Your task to perform on an android device: Go to display settings Image 0: 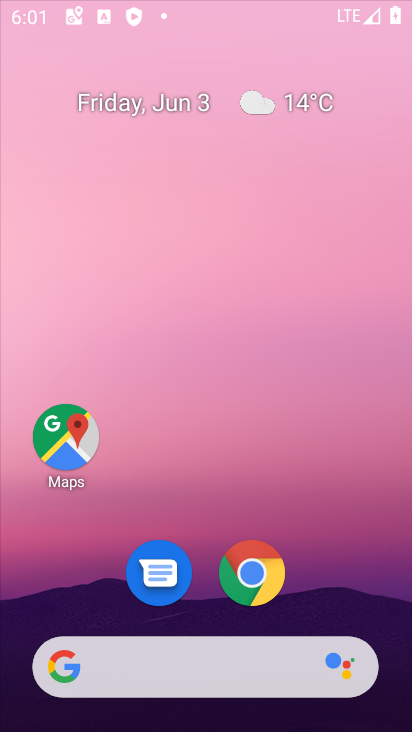
Step 0: drag from (302, 575) to (324, 100)
Your task to perform on an android device: Go to display settings Image 1: 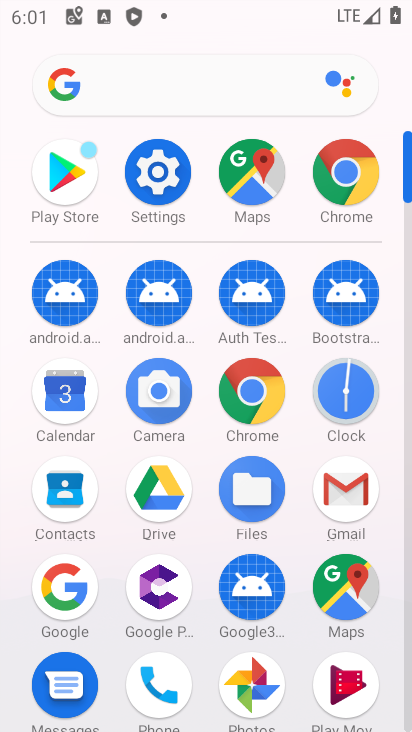
Step 1: click (153, 182)
Your task to perform on an android device: Go to display settings Image 2: 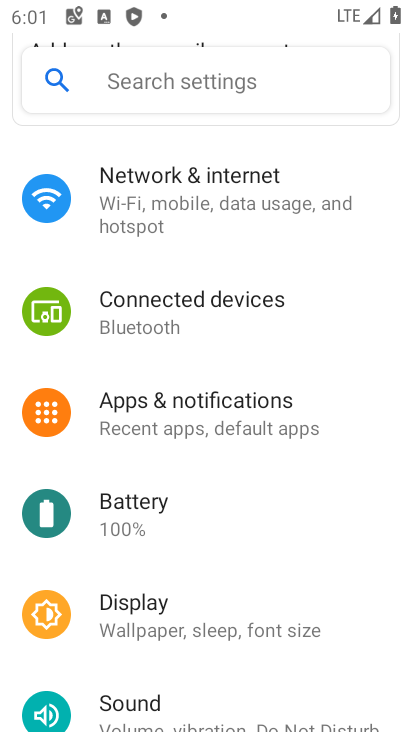
Step 2: click (171, 624)
Your task to perform on an android device: Go to display settings Image 3: 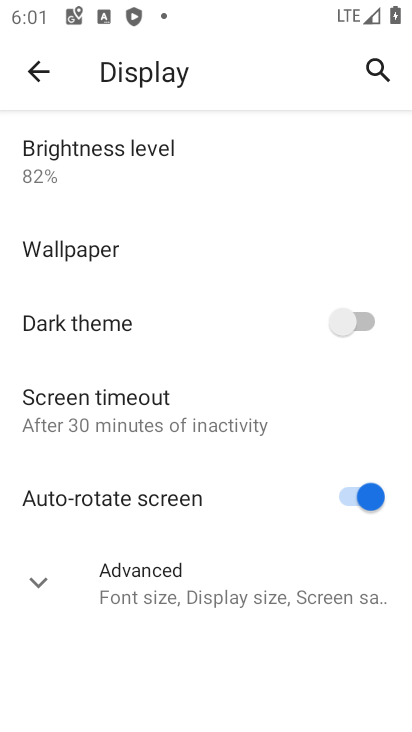
Step 3: task complete